Your task to perform on an android device: add a label to a message in the gmail app Image 0: 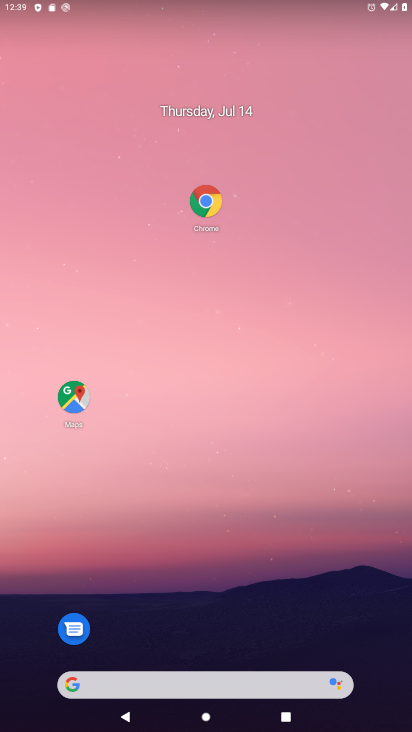
Step 0: drag from (230, 654) to (220, 1)
Your task to perform on an android device: add a label to a message in the gmail app Image 1: 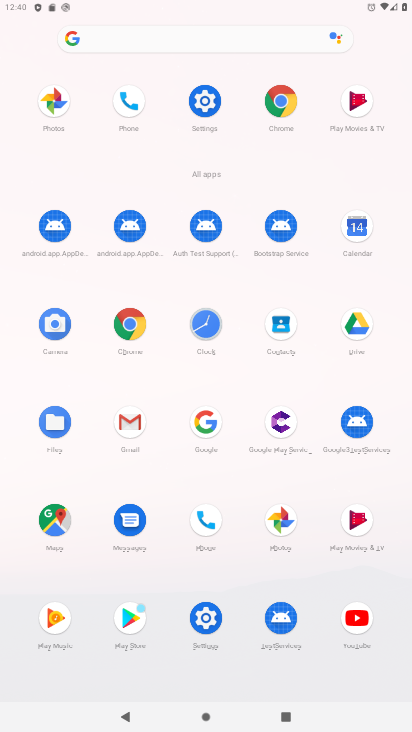
Step 1: click (121, 427)
Your task to perform on an android device: add a label to a message in the gmail app Image 2: 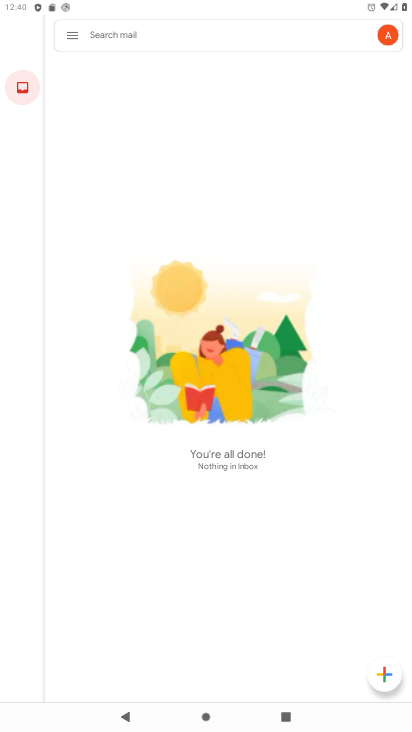
Step 2: task complete